Your task to perform on an android device: Go to eBay Image 0: 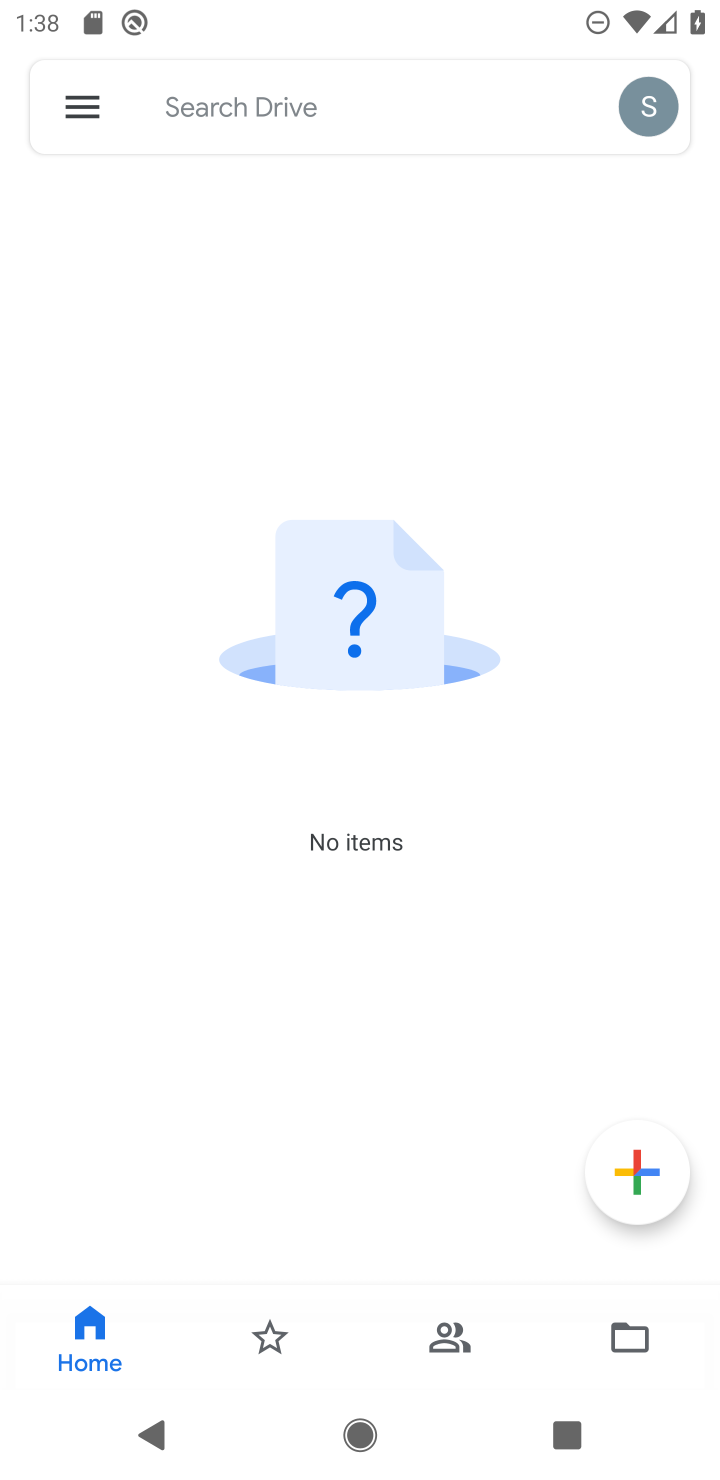
Step 0: press back button
Your task to perform on an android device: Go to eBay Image 1: 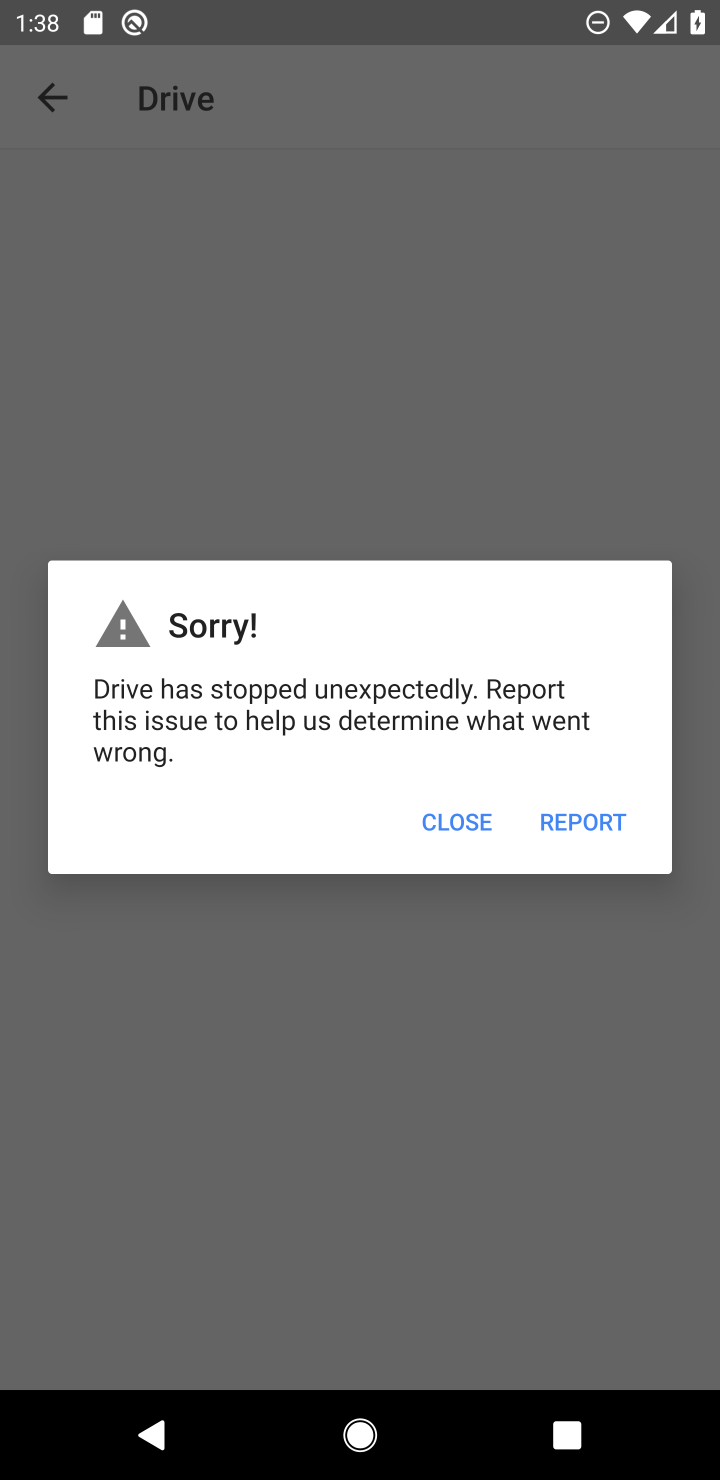
Step 1: press back button
Your task to perform on an android device: Go to eBay Image 2: 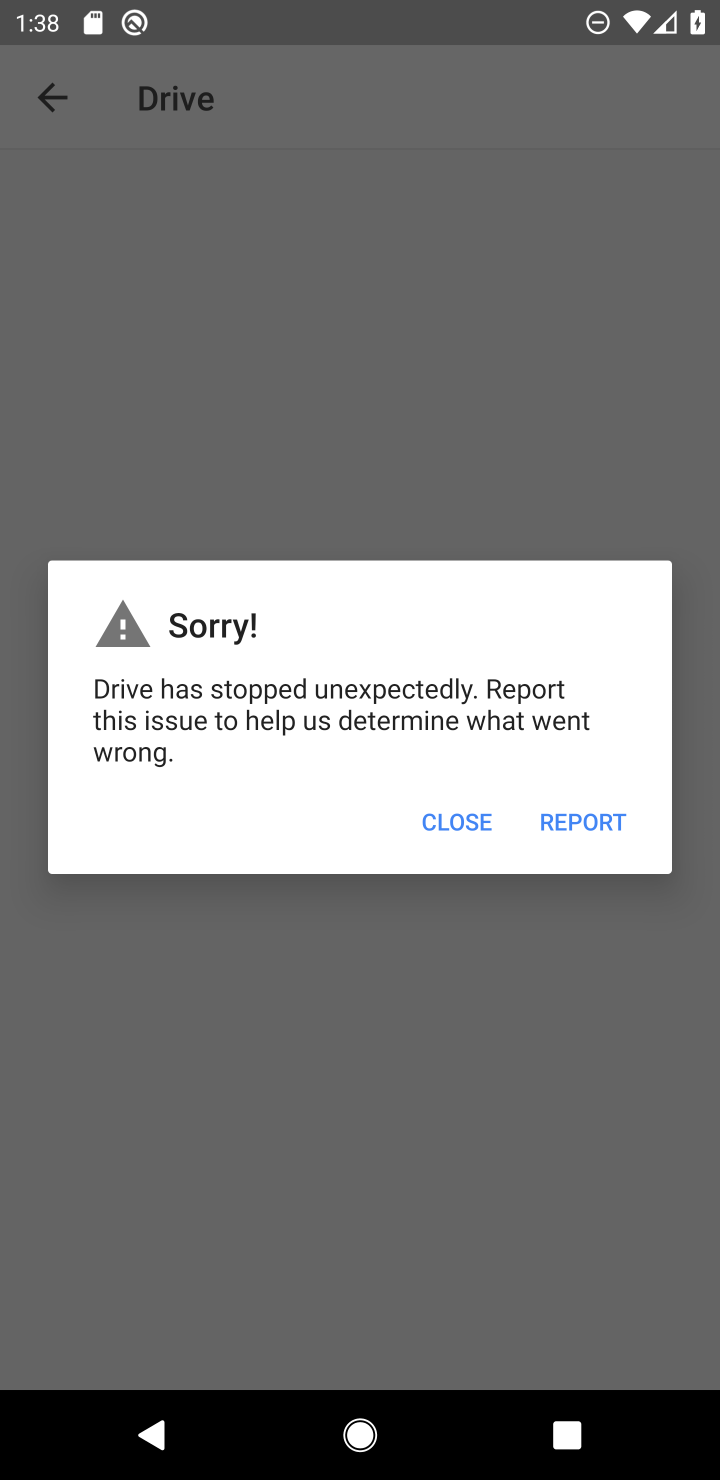
Step 2: press home button
Your task to perform on an android device: Go to eBay Image 3: 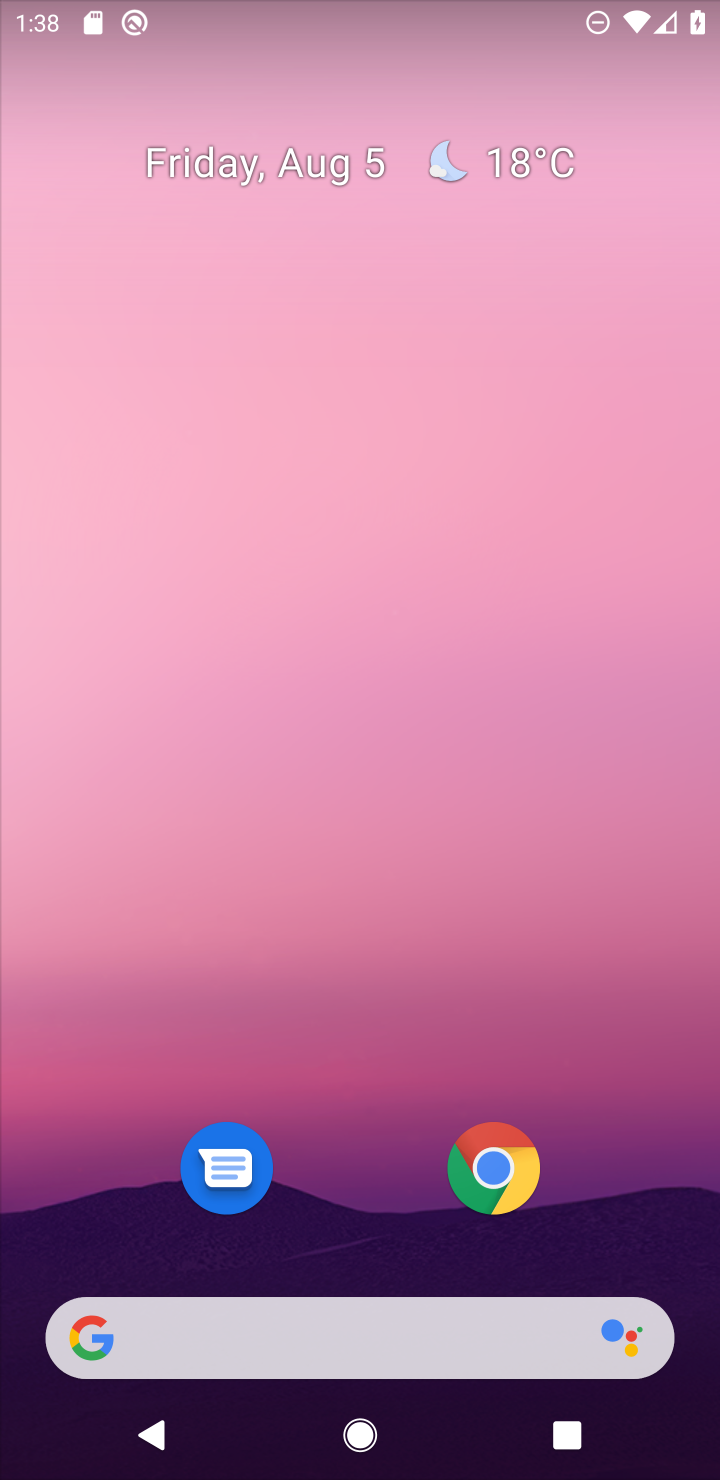
Step 3: click (499, 1175)
Your task to perform on an android device: Go to eBay Image 4: 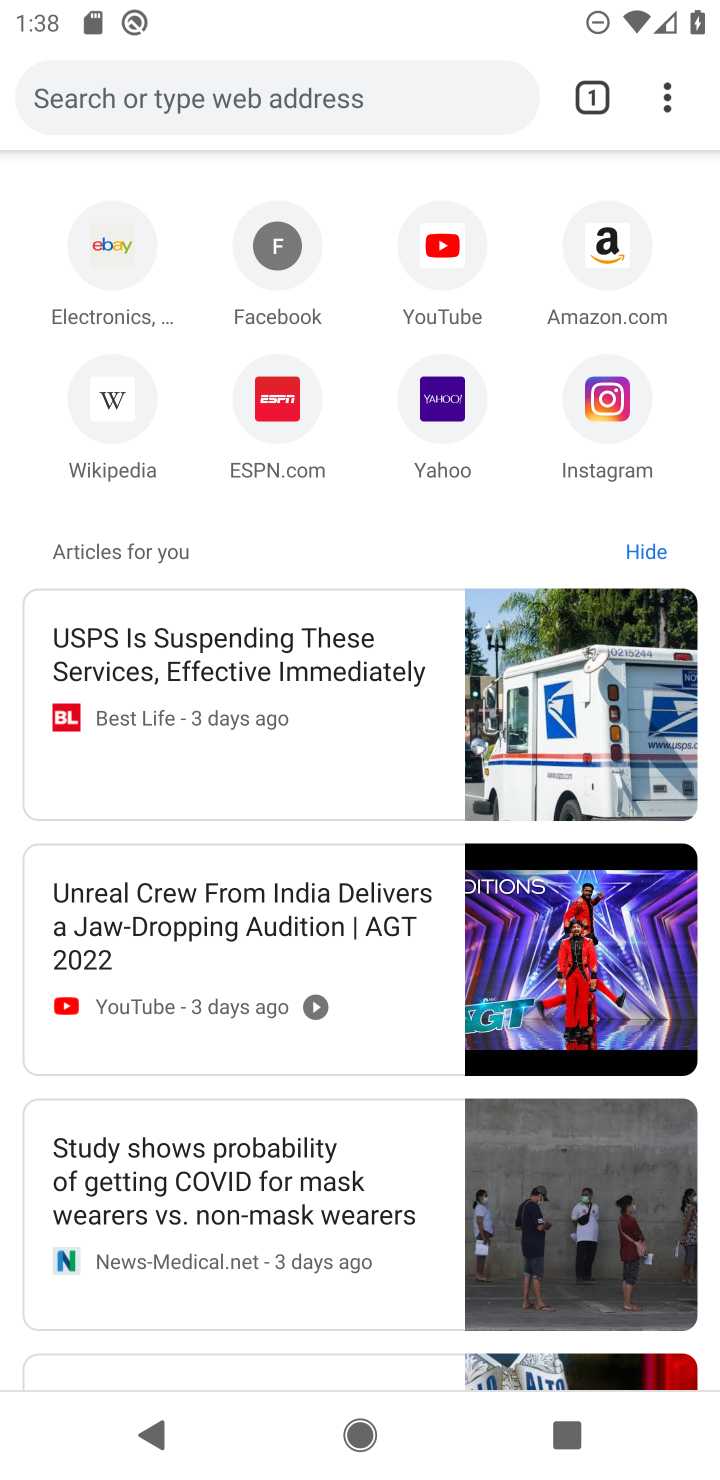
Step 4: click (111, 238)
Your task to perform on an android device: Go to eBay Image 5: 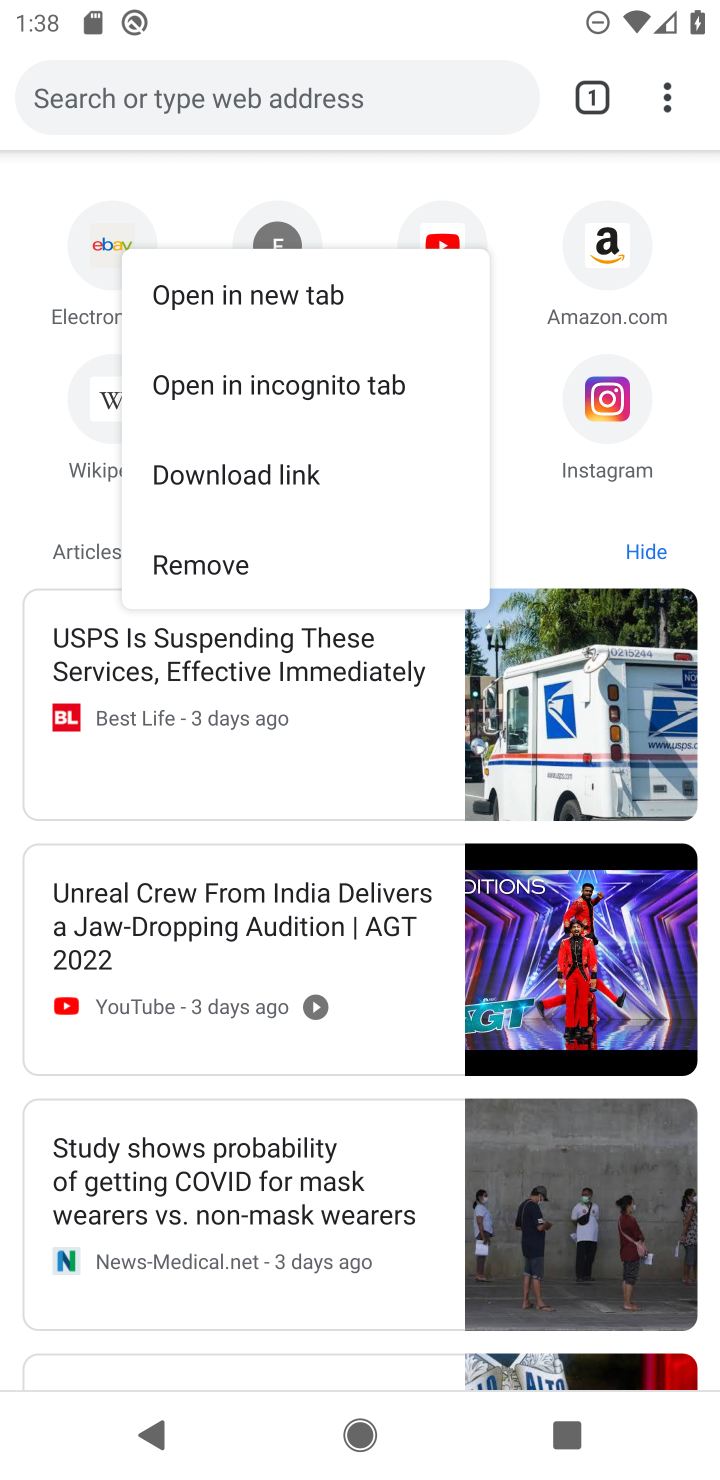
Step 5: click (89, 248)
Your task to perform on an android device: Go to eBay Image 6: 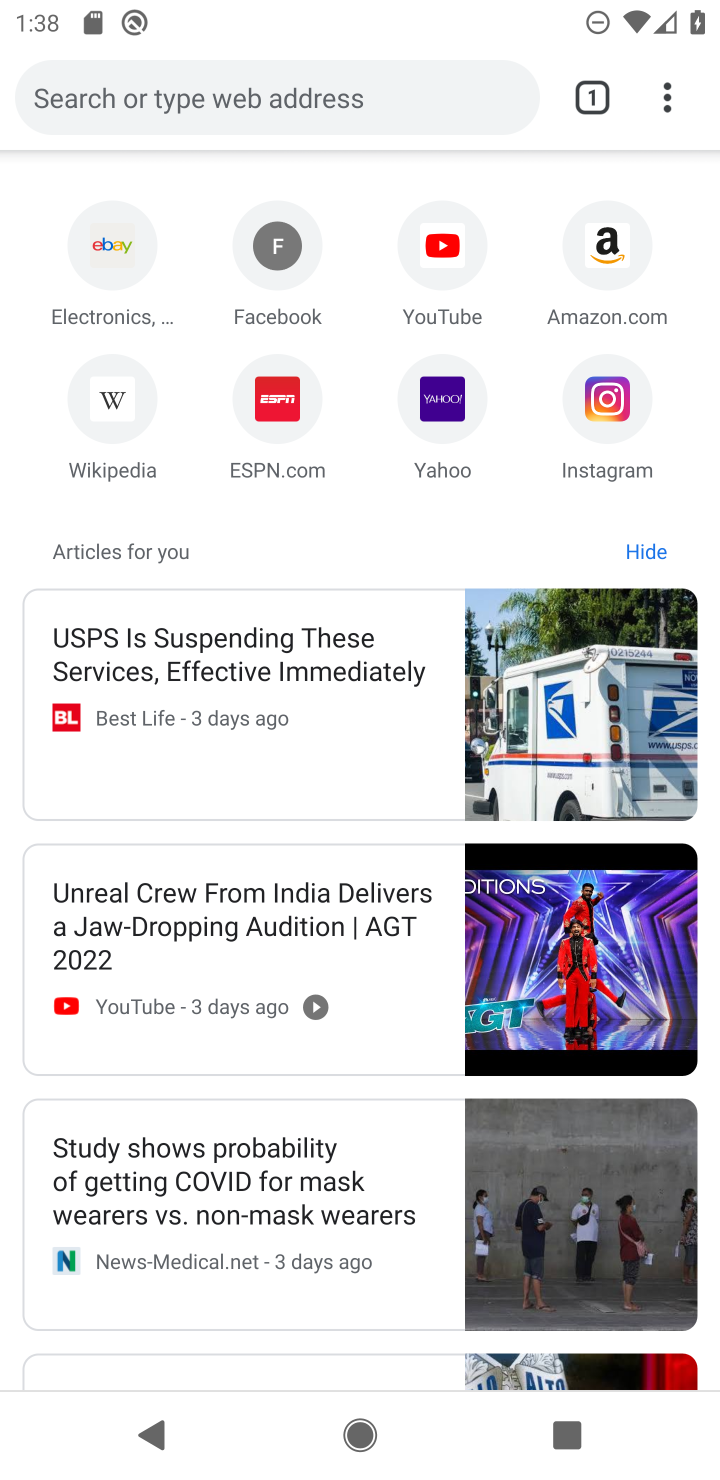
Step 6: click (102, 246)
Your task to perform on an android device: Go to eBay Image 7: 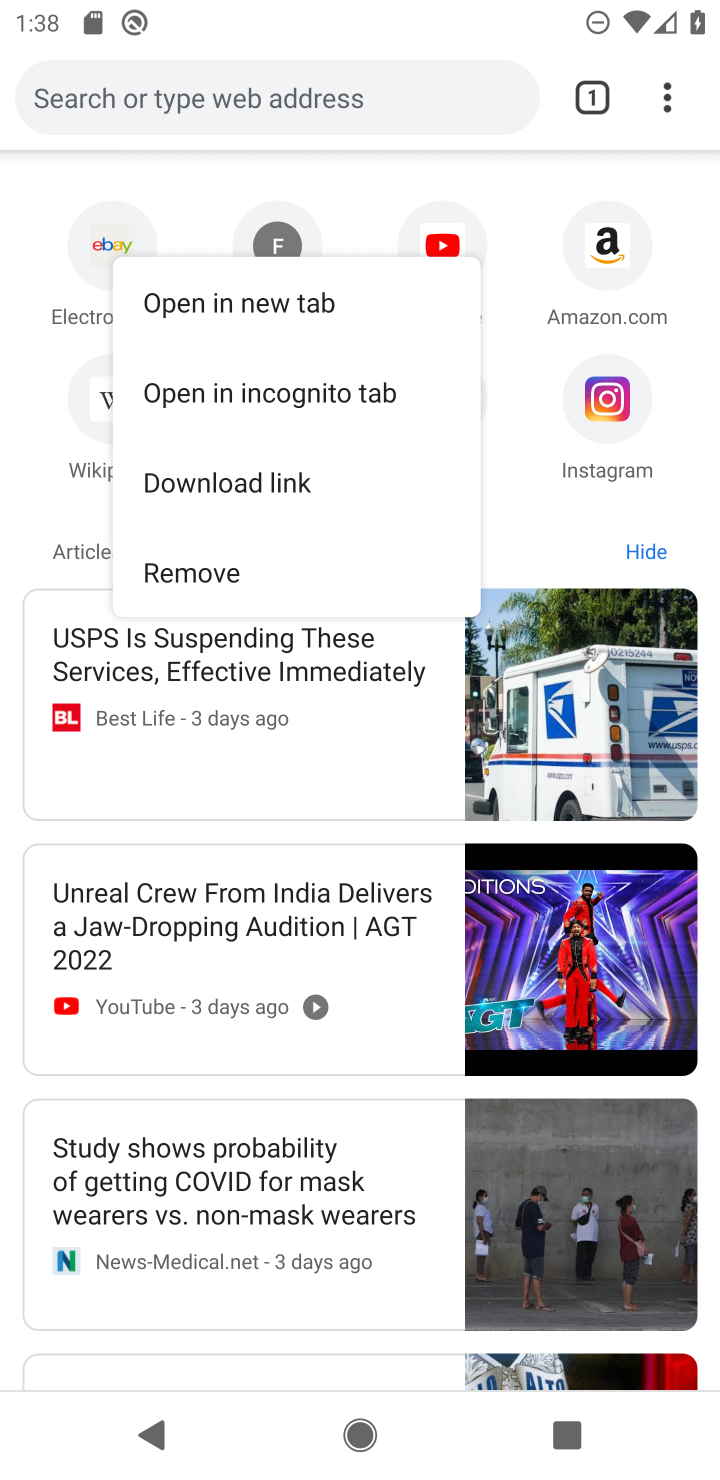
Step 7: click (122, 218)
Your task to perform on an android device: Go to eBay Image 8: 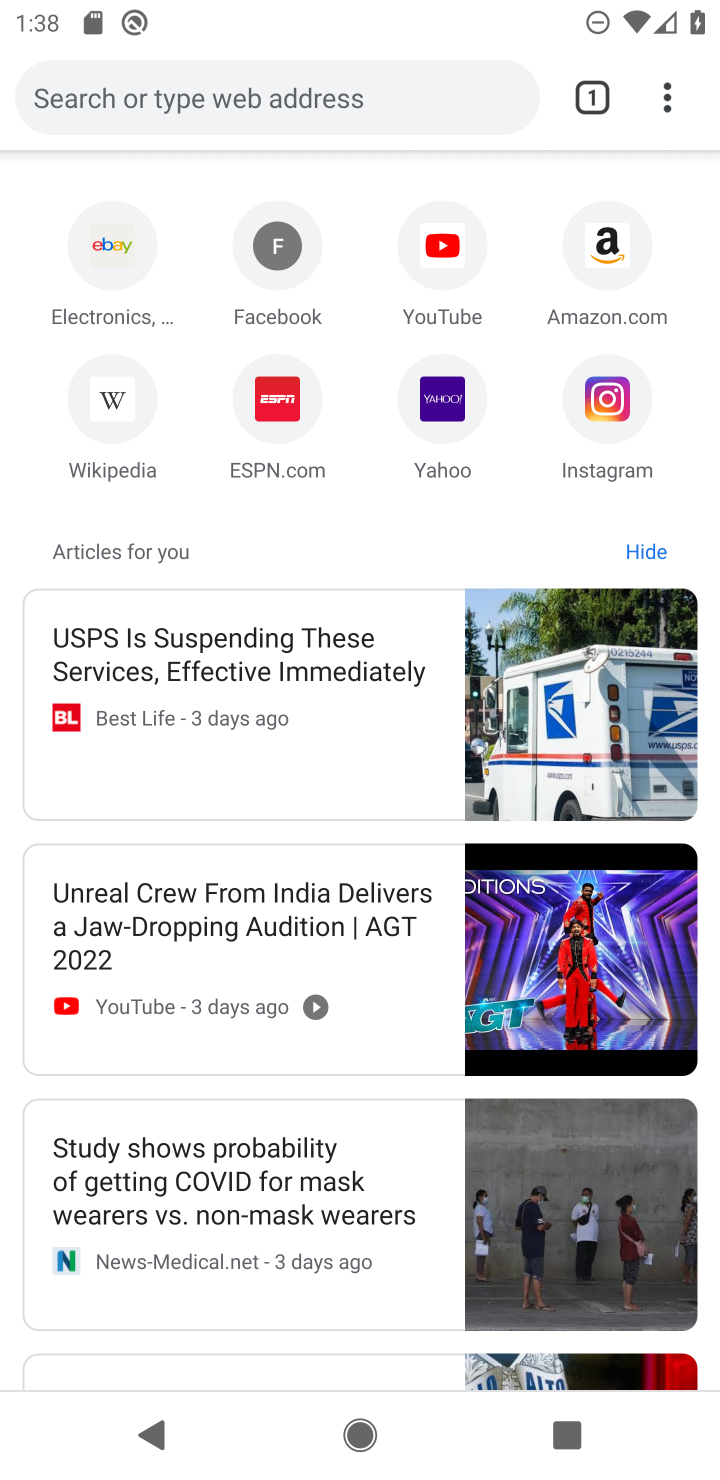
Step 8: click (110, 254)
Your task to perform on an android device: Go to eBay Image 9: 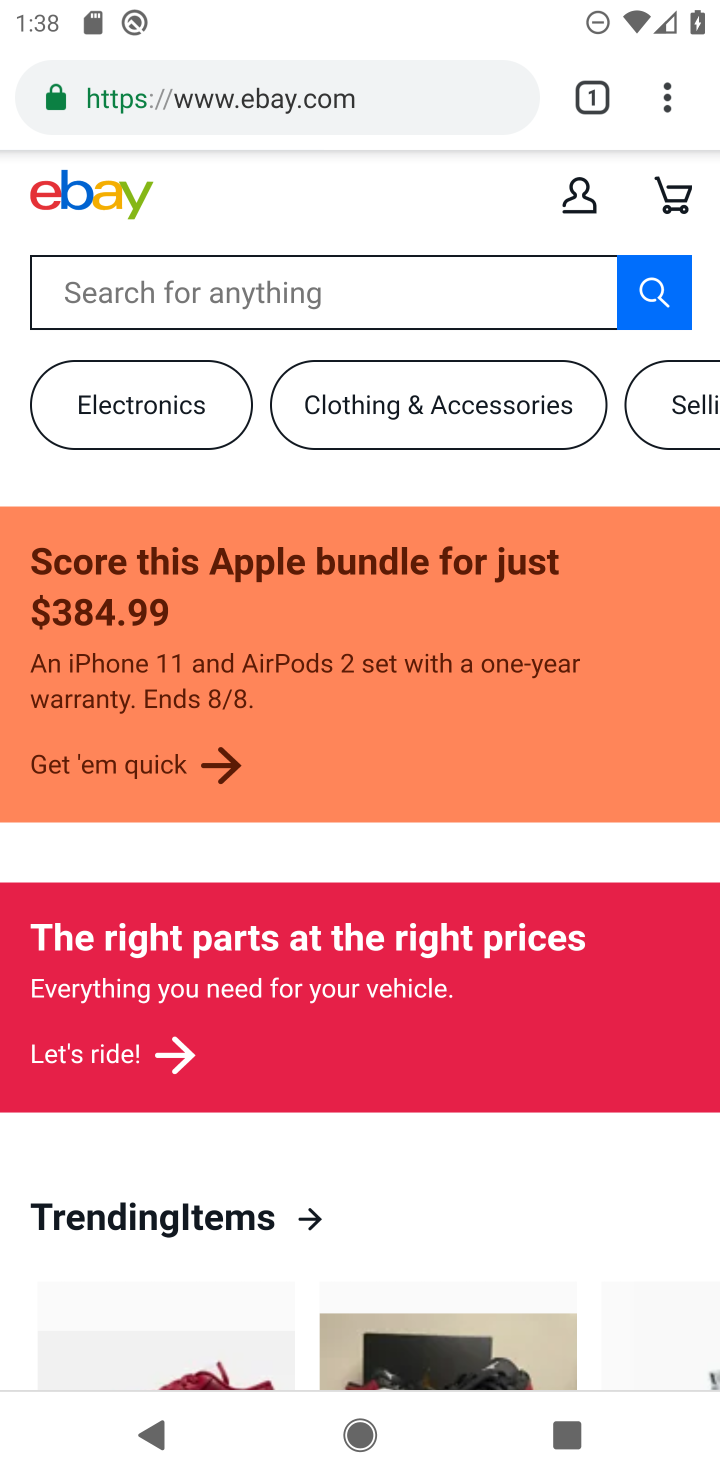
Step 9: task complete